Your task to perform on an android device: Check the news Image 0: 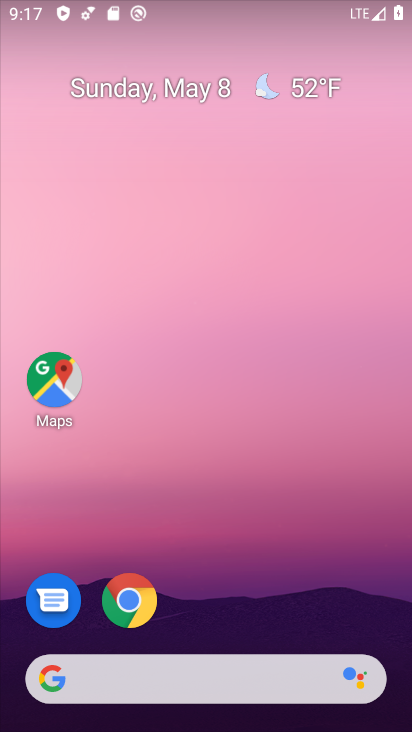
Step 0: drag from (4, 229) to (408, 251)
Your task to perform on an android device: Check the news Image 1: 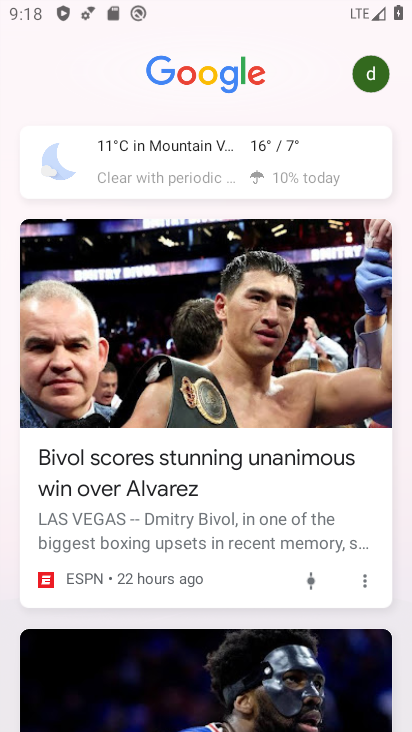
Step 1: task complete